Your task to perform on an android device: change text size in settings app Image 0: 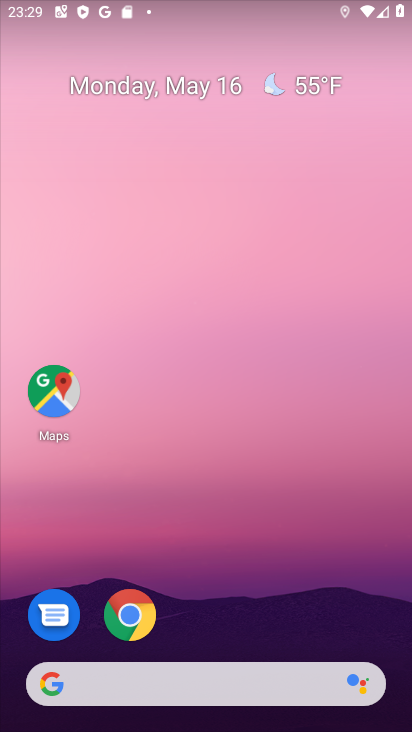
Step 0: drag from (204, 636) to (137, 77)
Your task to perform on an android device: change text size in settings app Image 1: 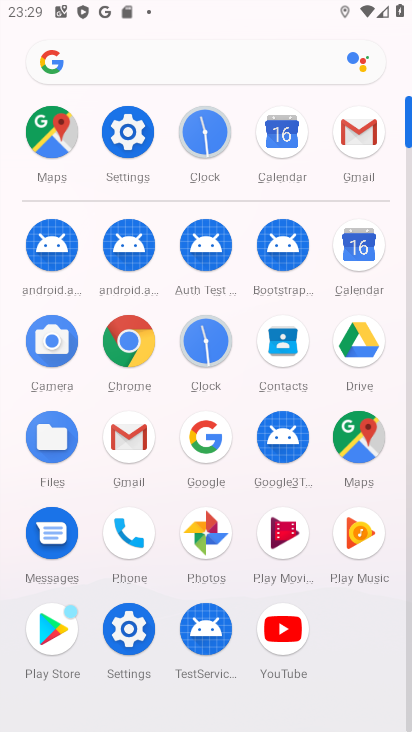
Step 1: click (128, 622)
Your task to perform on an android device: change text size in settings app Image 2: 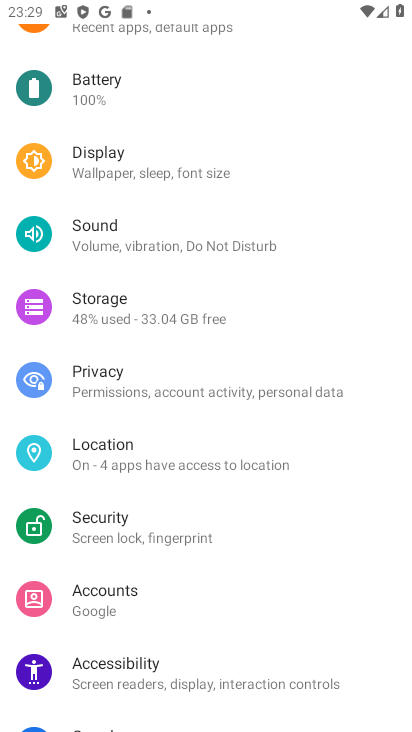
Step 2: click (112, 167)
Your task to perform on an android device: change text size in settings app Image 3: 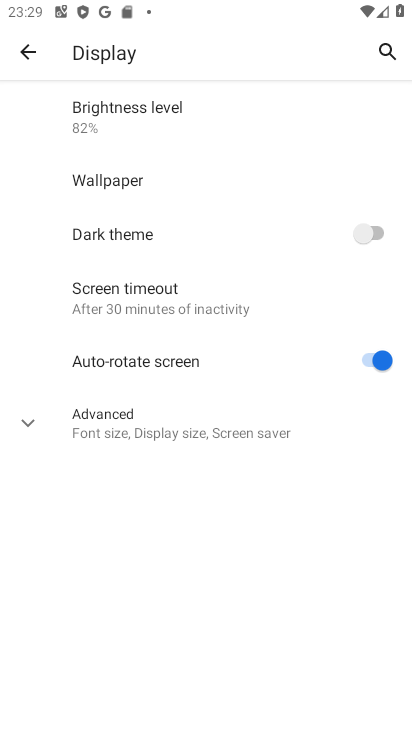
Step 3: click (180, 411)
Your task to perform on an android device: change text size in settings app Image 4: 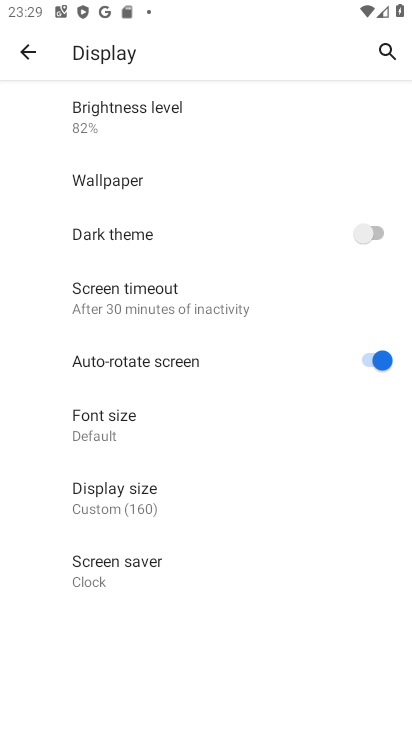
Step 4: click (157, 416)
Your task to perform on an android device: change text size in settings app Image 5: 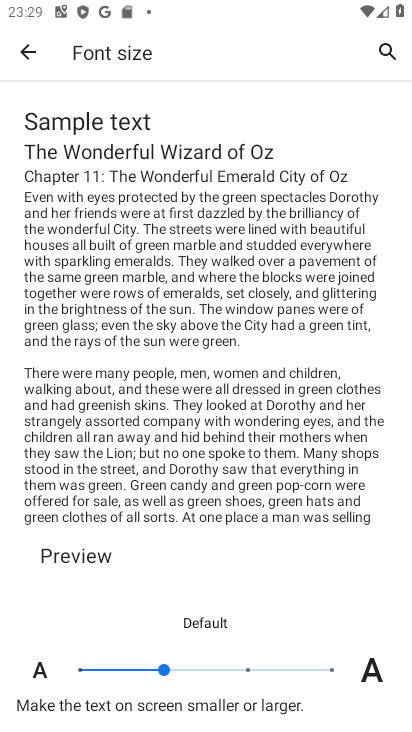
Step 5: click (74, 671)
Your task to perform on an android device: change text size in settings app Image 6: 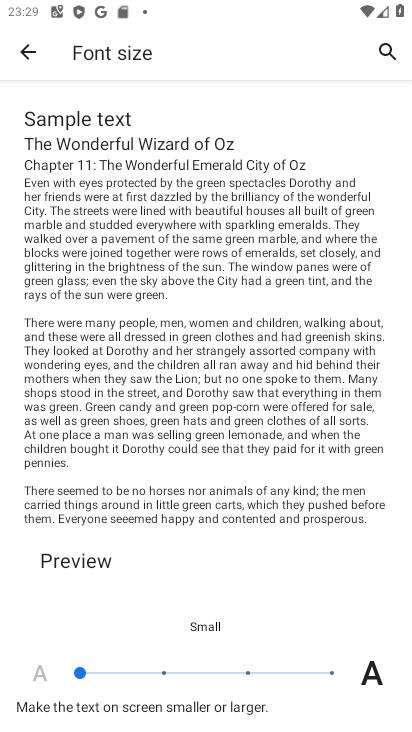
Step 6: task complete